Your task to perform on an android device: add a label to a message in the gmail app Image 0: 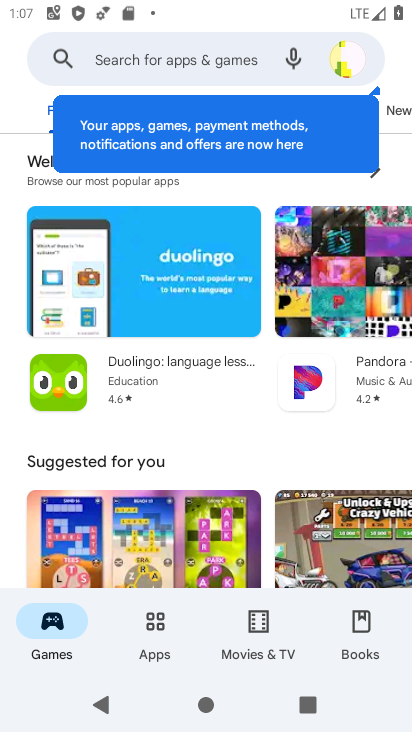
Step 0: press home button
Your task to perform on an android device: add a label to a message in the gmail app Image 1: 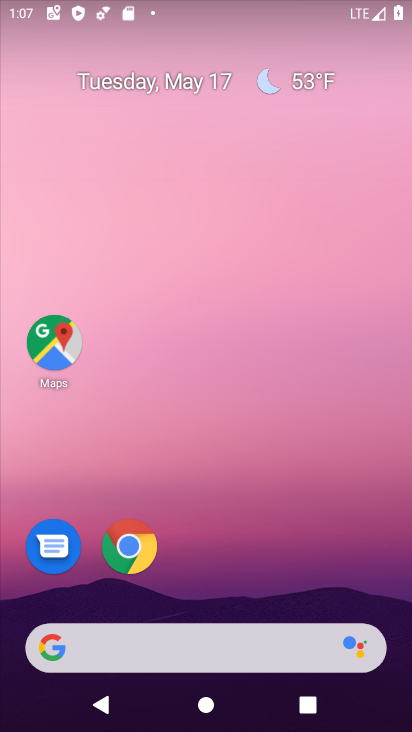
Step 1: drag from (215, 604) to (207, 180)
Your task to perform on an android device: add a label to a message in the gmail app Image 2: 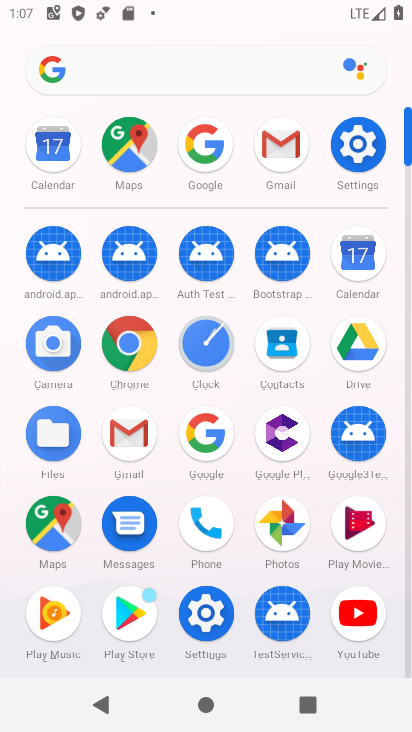
Step 2: click (273, 151)
Your task to perform on an android device: add a label to a message in the gmail app Image 3: 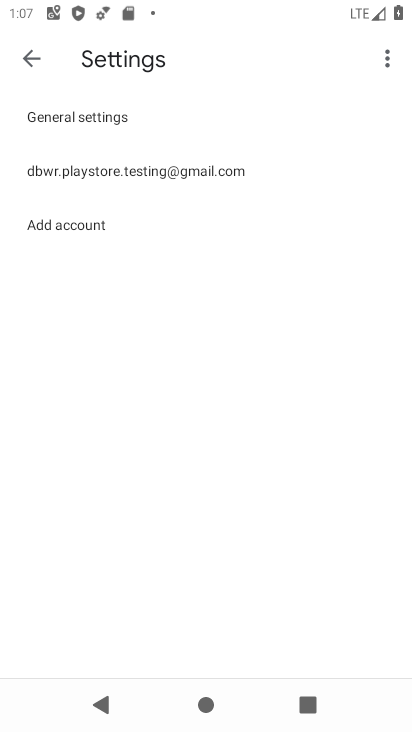
Step 3: click (31, 57)
Your task to perform on an android device: add a label to a message in the gmail app Image 4: 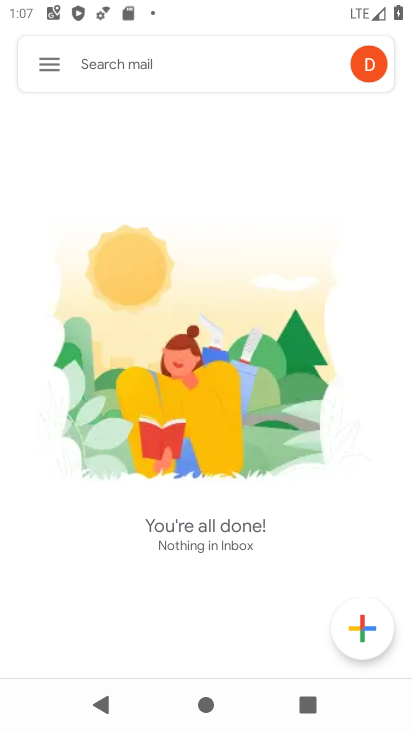
Step 4: click (45, 64)
Your task to perform on an android device: add a label to a message in the gmail app Image 5: 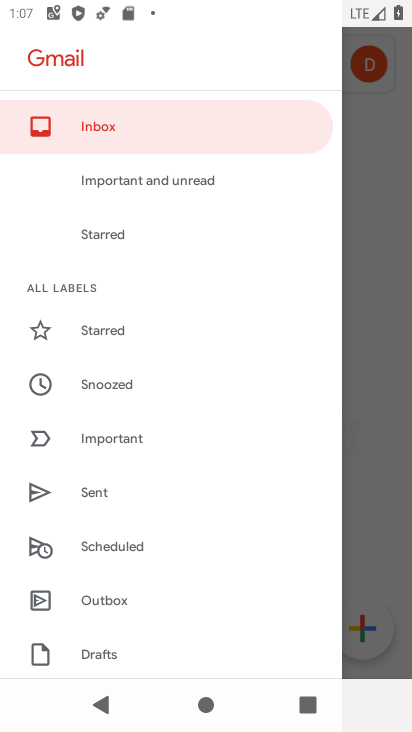
Step 5: drag from (120, 625) to (171, 353)
Your task to perform on an android device: add a label to a message in the gmail app Image 6: 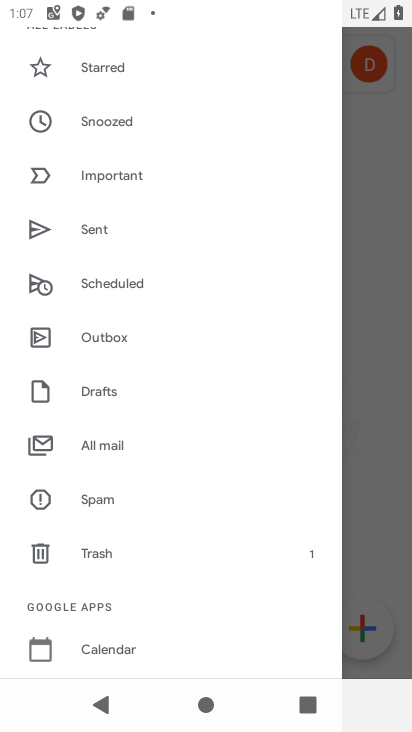
Step 6: click (158, 451)
Your task to perform on an android device: add a label to a message in the gmail app Image 7: 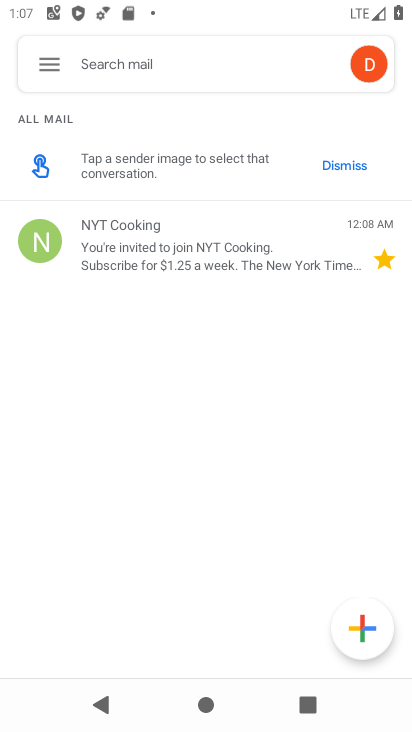
Step 7: click (179, 240)
Your task to perform on an android device: add a label to a message in the gmail app Image 8: 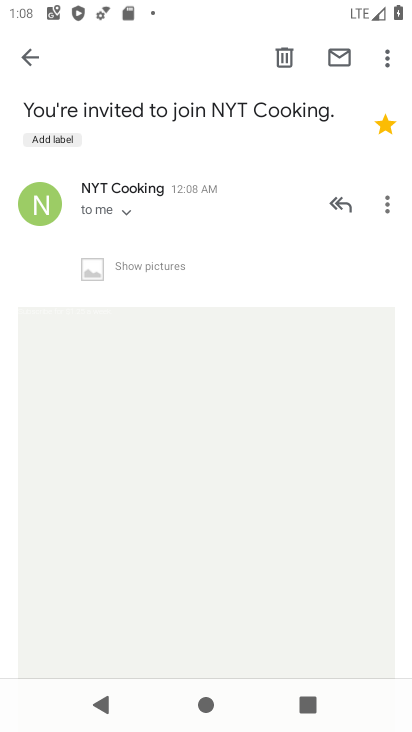
Step 8: click (383, 58)
Your task to perform on an android device: add a label to a message in the gmail app Image 9: 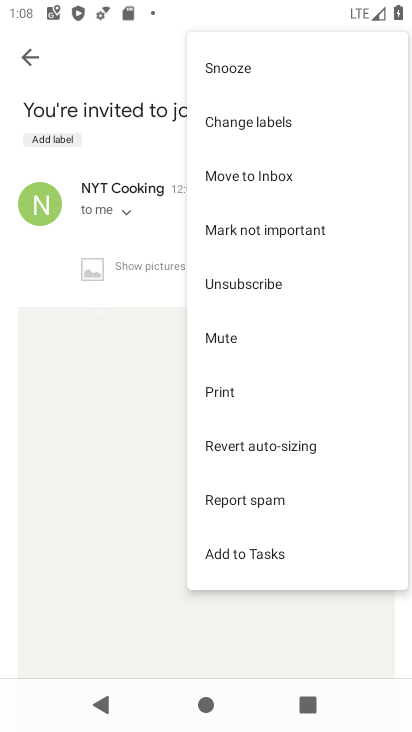
Step 9: click (275, 120)
Your task to perform on an android device: add a label to a message in the gmail app Image 10: 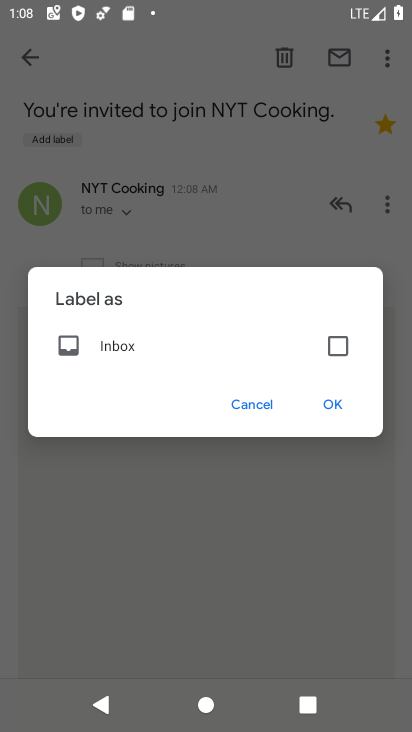
Step 10: click (323, 335)
Your task to perform on an android device: add a label to a message in the gmail app Image 11: 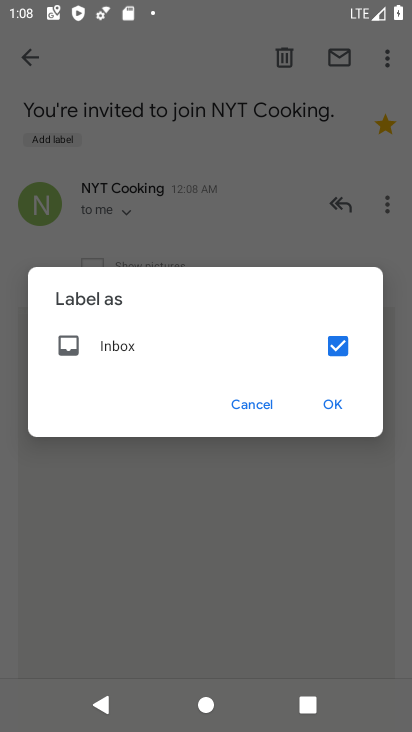
Step 11: click (339, 410)
Your task to perform on an android device: add a label to a message in the gmail app Image 12: 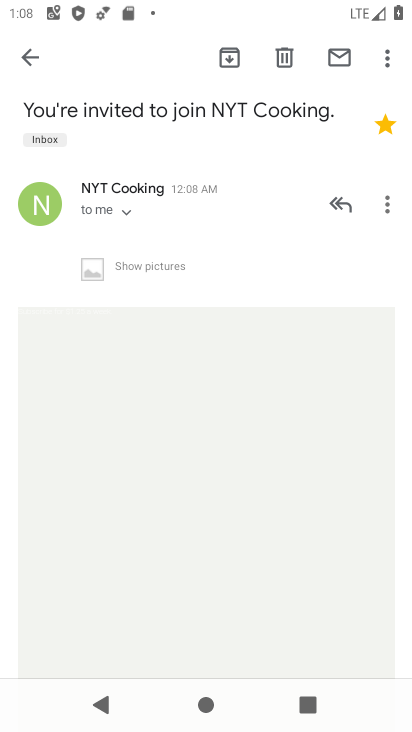
Step 12: task complete